Your task to perform on an android device: When is my next meeting? Image 0: 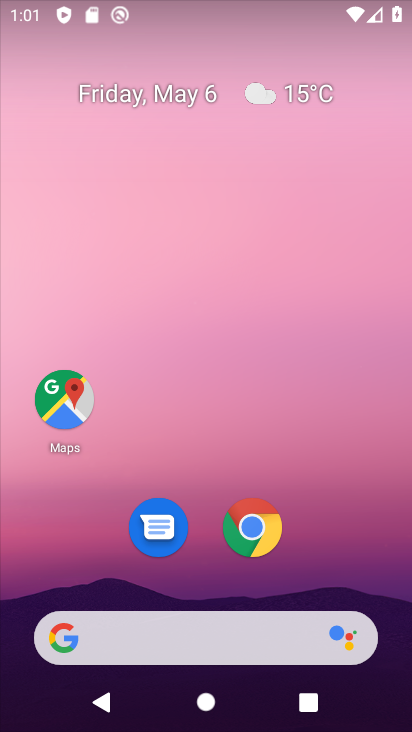
Step 0: click (160, 108)
Your task to perform on an android device: When is my next meeting? Image 1: 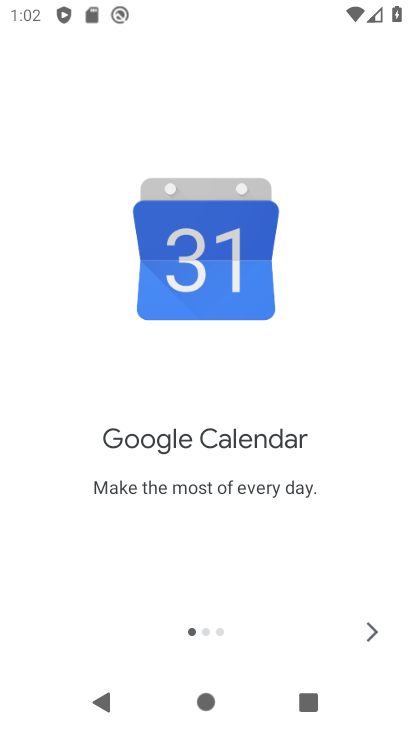
Step 1: click (381, 636)
Your task to perform on an android device: When is my next meeting? Image 2: 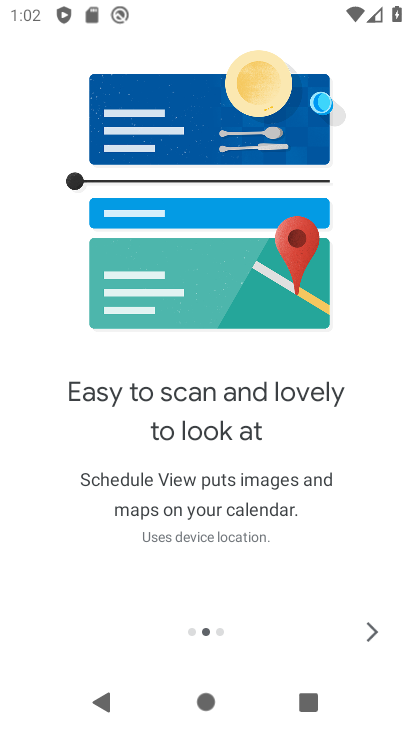
Step 2: click (381, 636)
Your task to perform on an android device: When is my next meeting? Image 3: 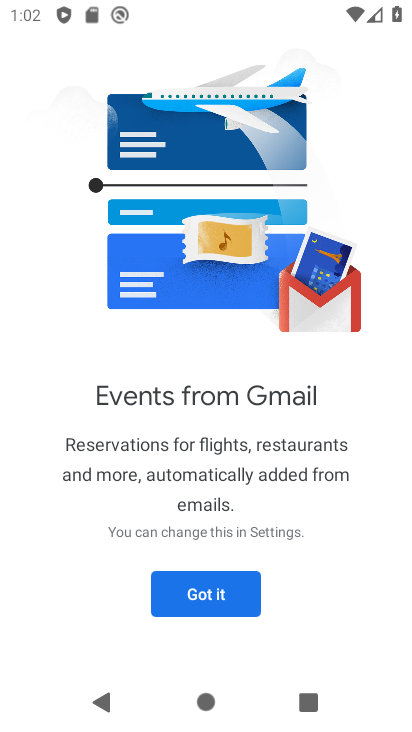
Step 3: click (198, 592)
Your task to perform on an android device: When is my next meeting? Image 4: 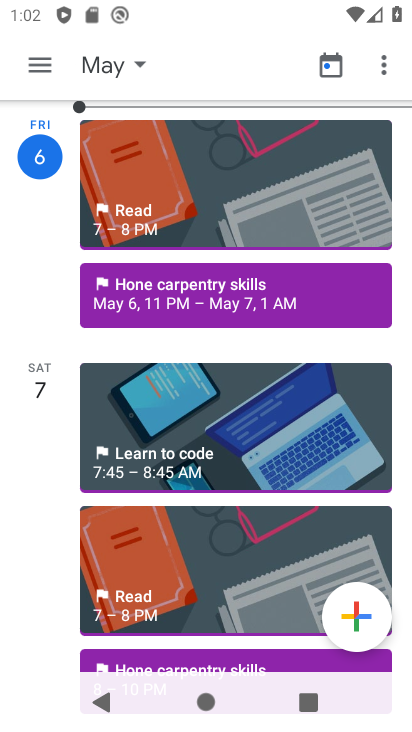
Step 4: click (31, 83)
Your task to perform on an android device: When is my next meeting? Image 5: 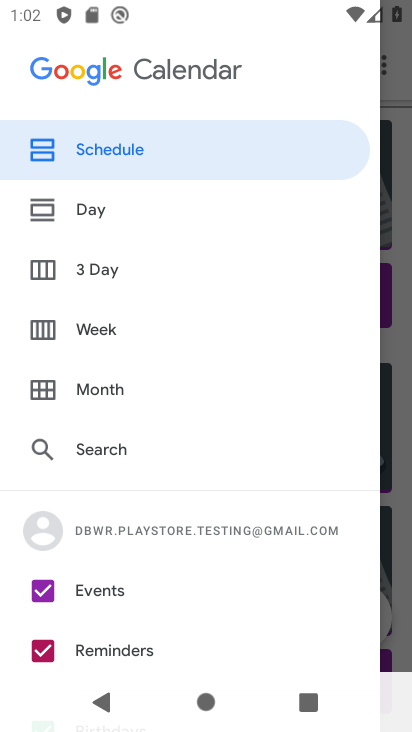
Step 5: task complete